Your task to perform on an android device: manage bookmarks in the chrome app Image 0: 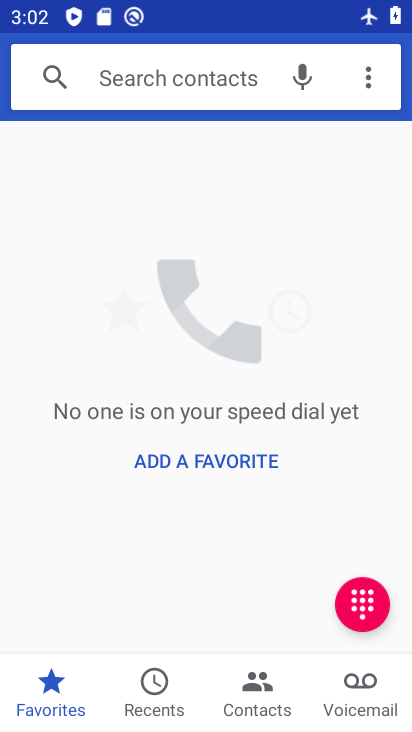
Step 0: press home button
Your task to perform on an android device: manage bookmarks in the chrome app Image 1: 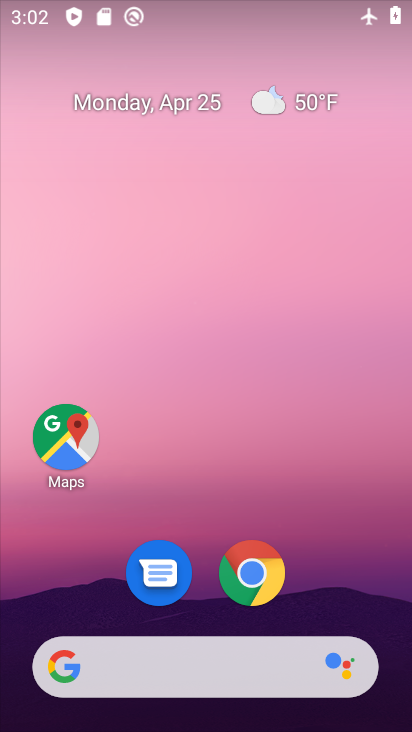
Step 1: drag from (366, 584) to (402, 43)
Your task to perform on an android device: manage bookmarks in the chrome app Image 2: 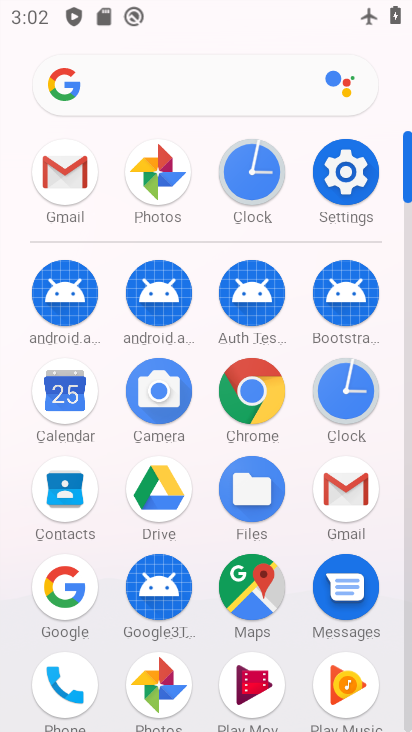
Step 2: click (257, 407)
Your task to perform on an android device: manage bookmarks in the chrome app Image 3: 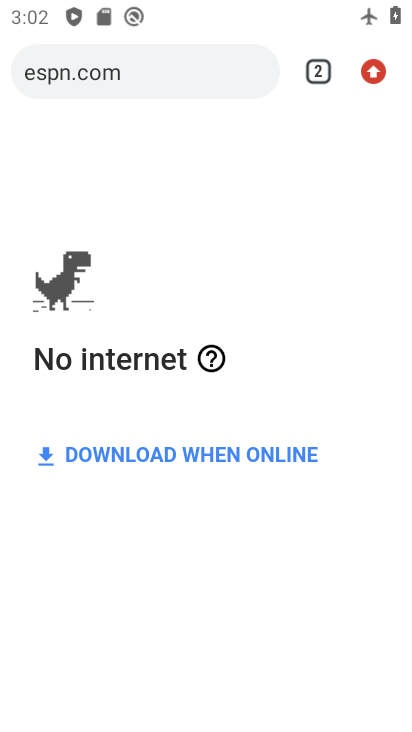
Step 3: click (363, 73)
Your task to perform on an android device: manage bookmarks in the chrome app Image 4: 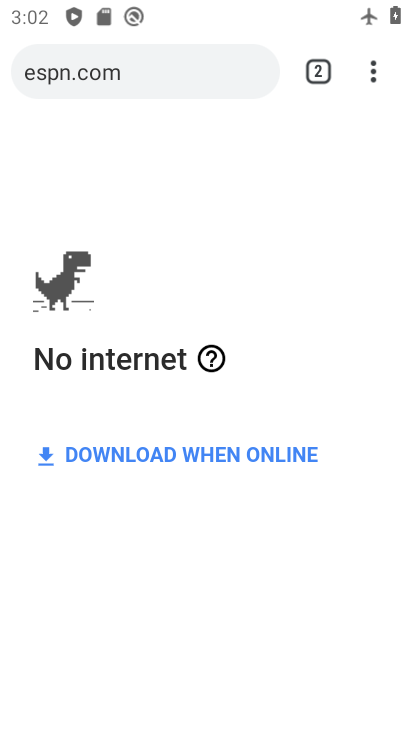
Step 4: click (387, 78)
Your task to perform on an android device: manage bookmarks in the chrome app Image 5: 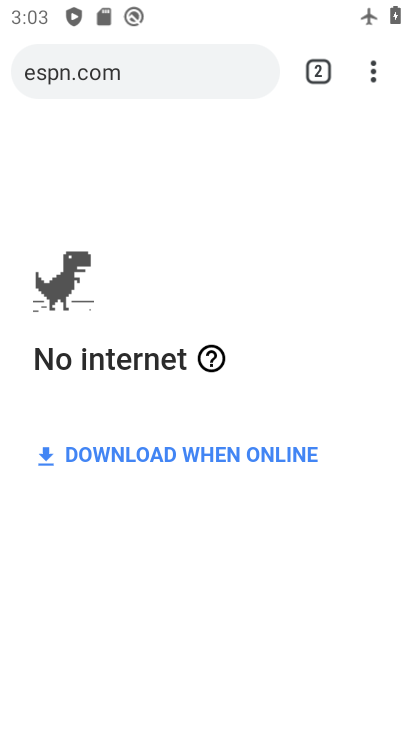
Step 5: drag from (374, 82) to (187, 284)
Your task to perform on an android device: manage bookmarks in the chrome app Image 6: 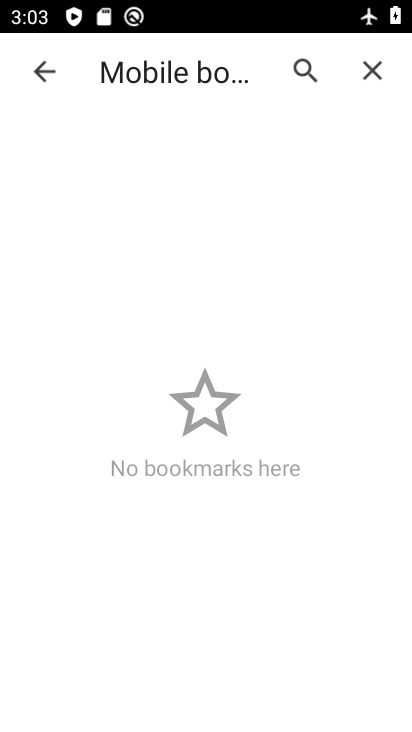
Step 6: drag from (153, 555) to (145, 241)
Your task to perform on an android device: manage bookmarks in the chrome app Image 7: 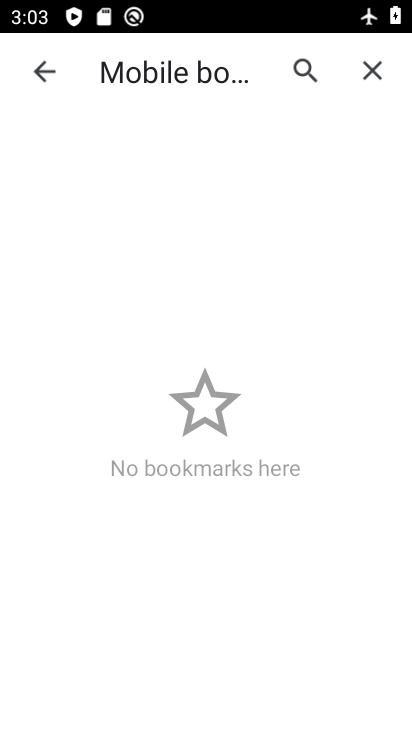
Step 7: click (4, 427)
Your task to perform on an android device: manage bookmarks in the chrome app Image 8: 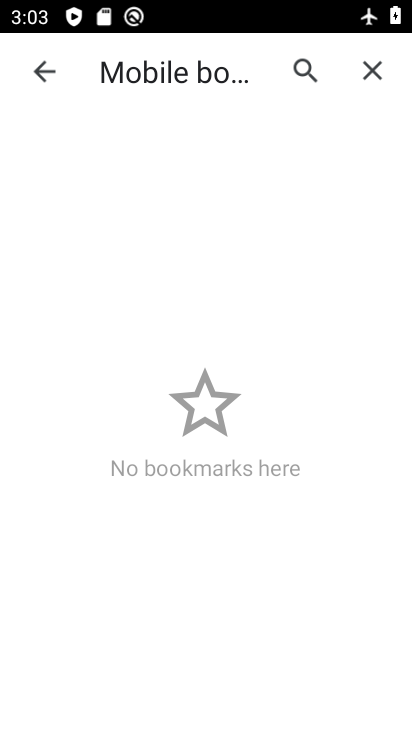
Step 8: task complete